Your task to perform on an android device: Search for the best rated vacuums on Target Image 0: 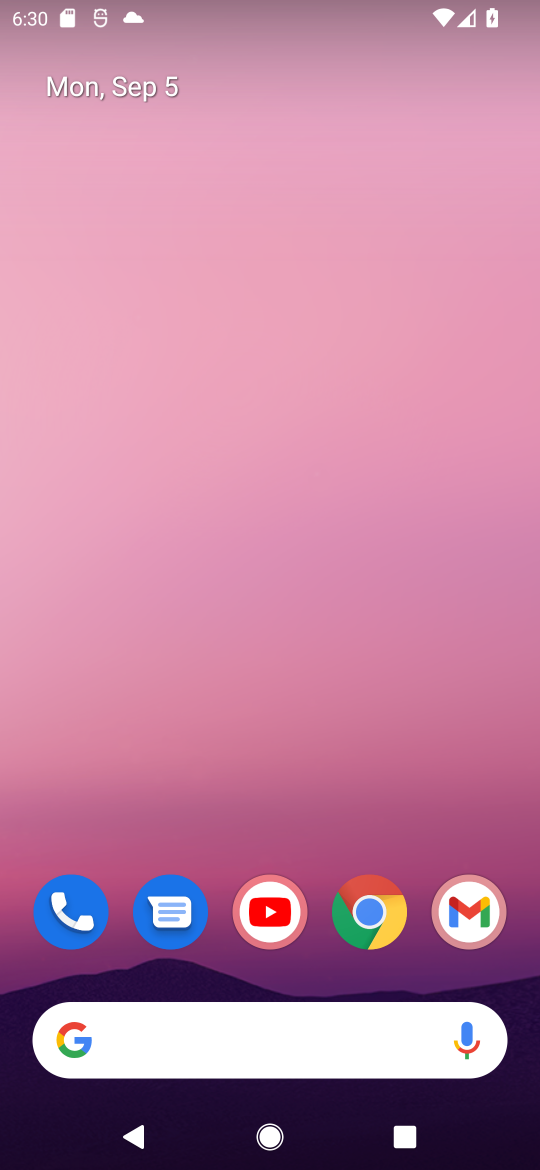
Step 0: click (358, 920)
Your task to perform on an android device: Search for the best rated vacuums on Target Image 1: 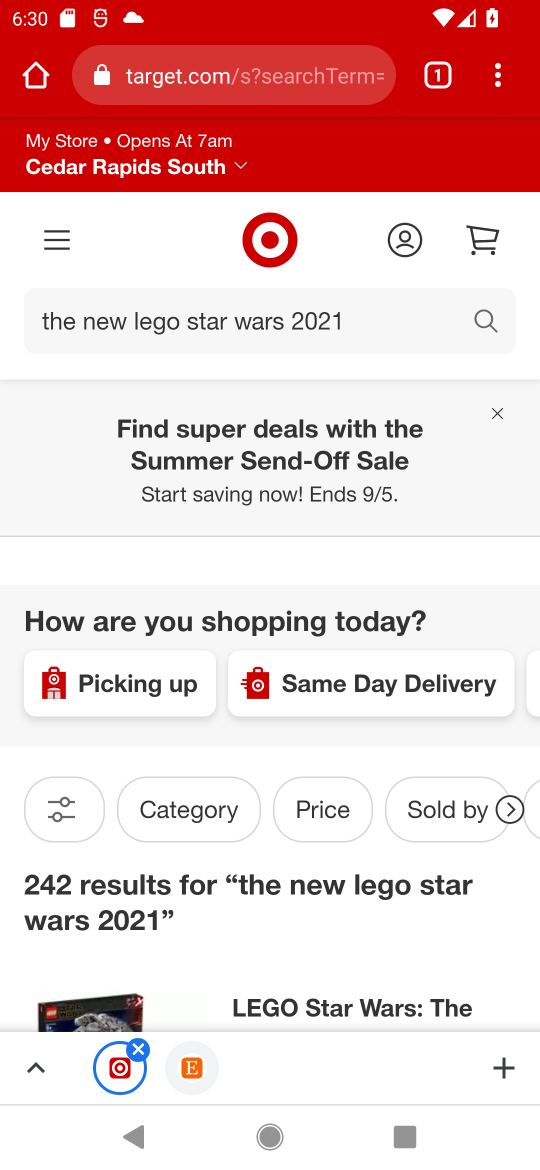
Step 1: click (437, 310)
Your task to perform on an android device: Search for the best rated vacuums on Target Image 2: 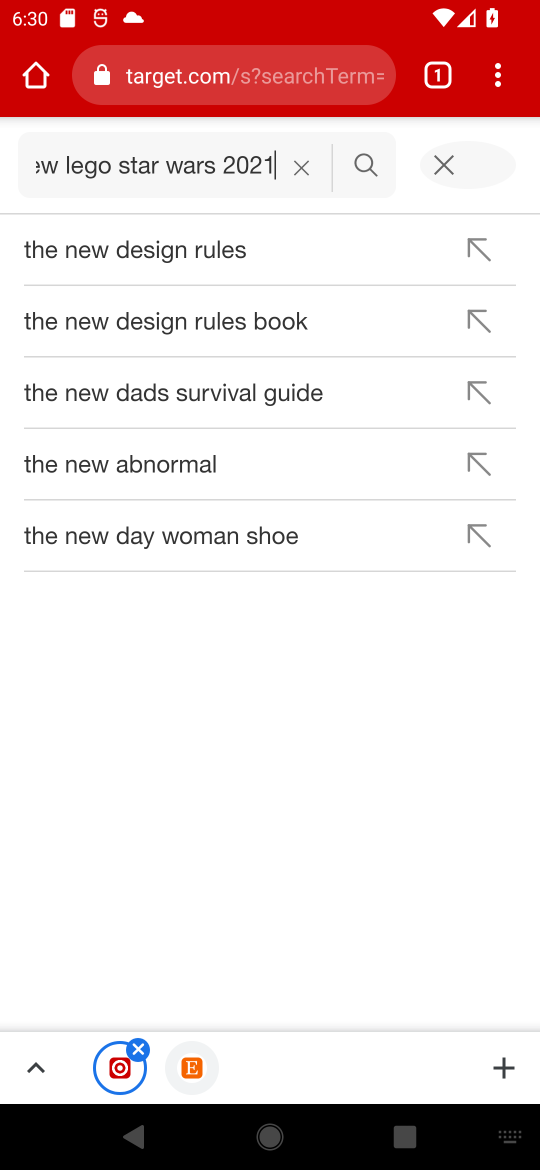
Step 2: click (290, 166)
Your task to perform on an android device: Search for the best rated vacuums on Target Image 3: 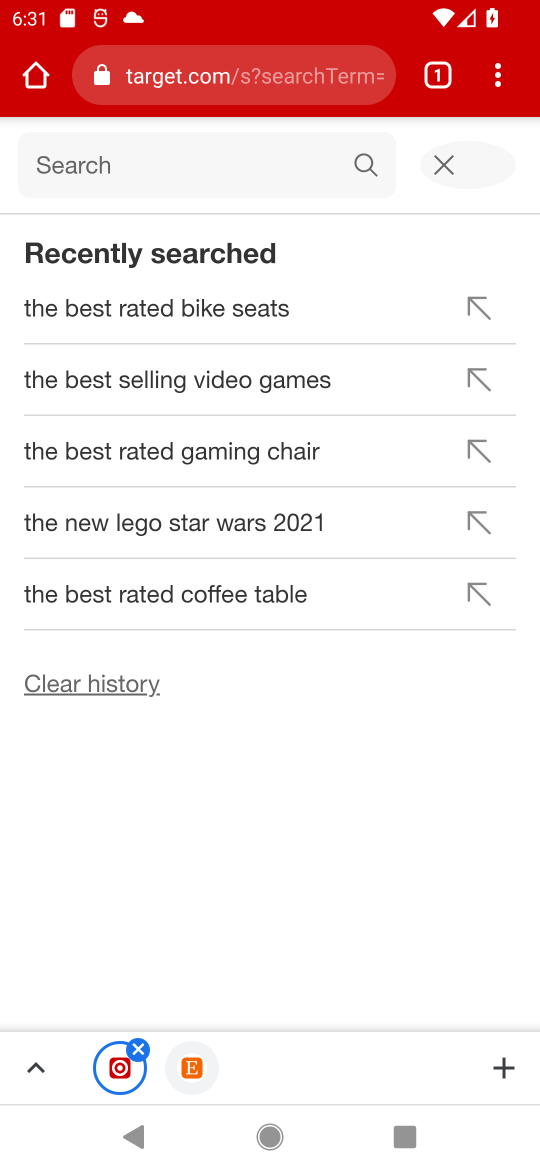
Step 3: type "the best rated vacuums"
Your task to perform on an android device: Search for the best rated vacuums on Target Image 4: 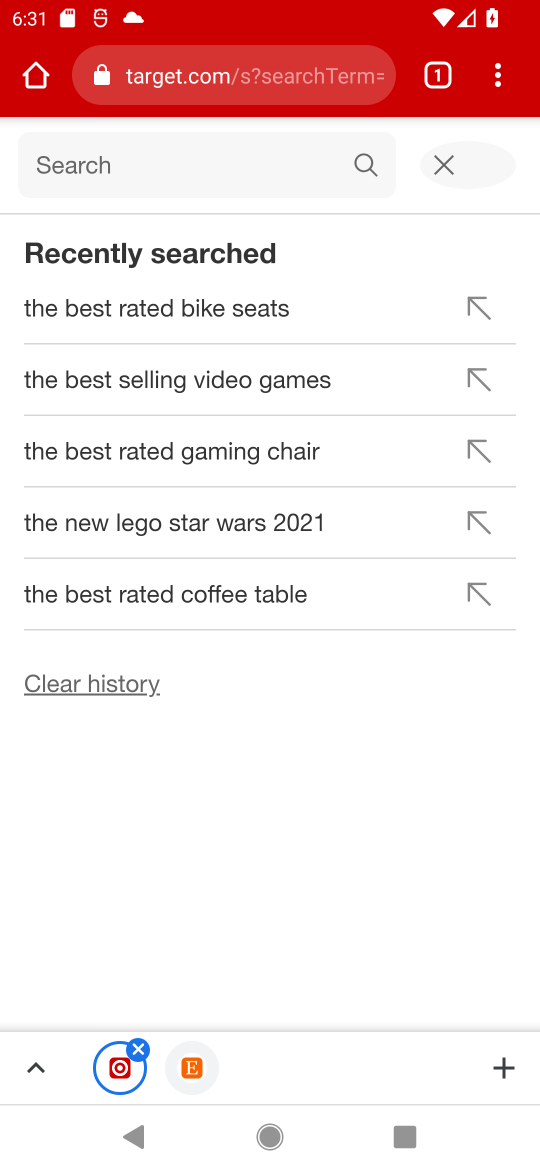
Step 4: click (240, 153)
Your task to perform on an android device: Search for the best rated vacuums on Target Image 5: 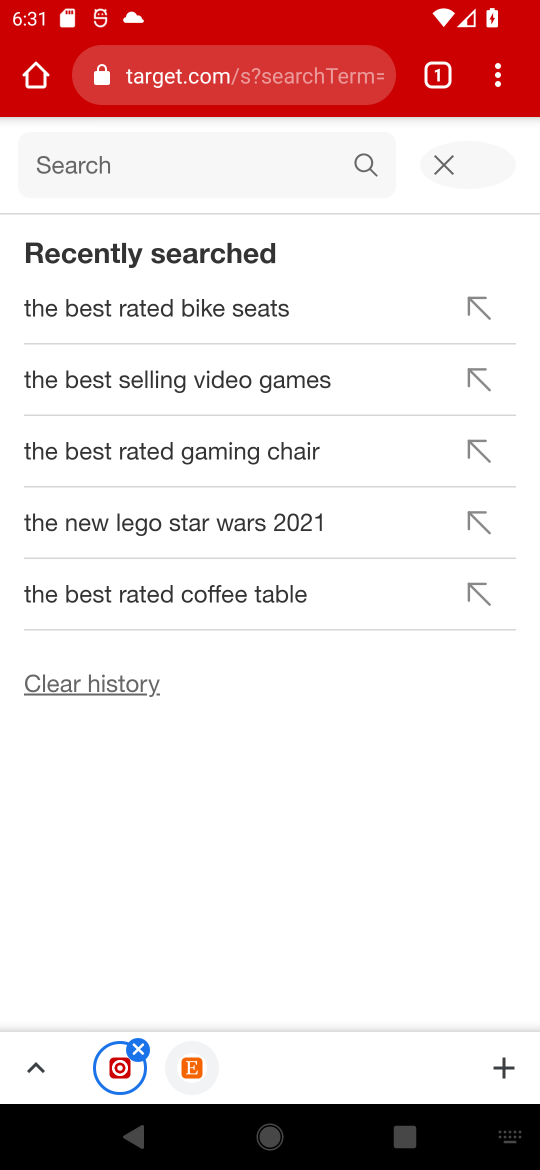
Step 5: type "the best rated vacuums"
Your task to perform on an android device: Search for the best rated vacuums on Target Image 6: 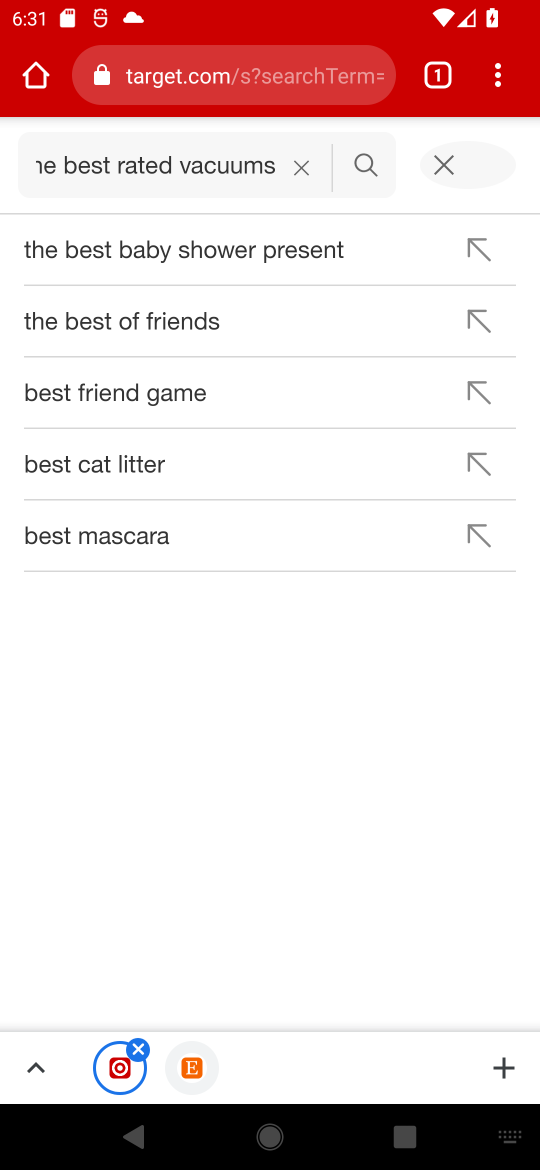
Step 6: click (369, 167)
Your task to perform on an android device: Search for the best rated vacuums on Target Image 7: 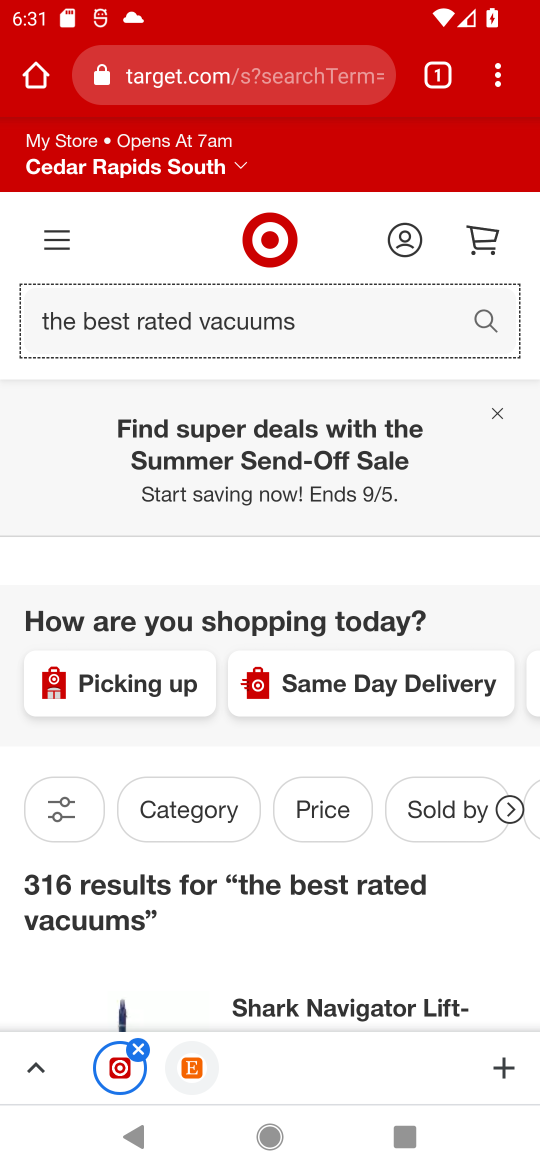
Step 7: task complete